Your task to perform on an android device: delete a single message in the gmail app Image 0: 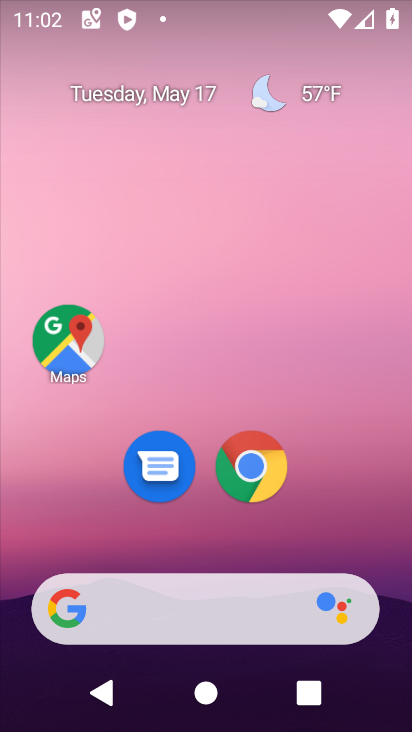
Step 0: drag from (202, 549) to (152, 11)
Your task to perform on an android device: delete a single message in the gmail app Image 1: 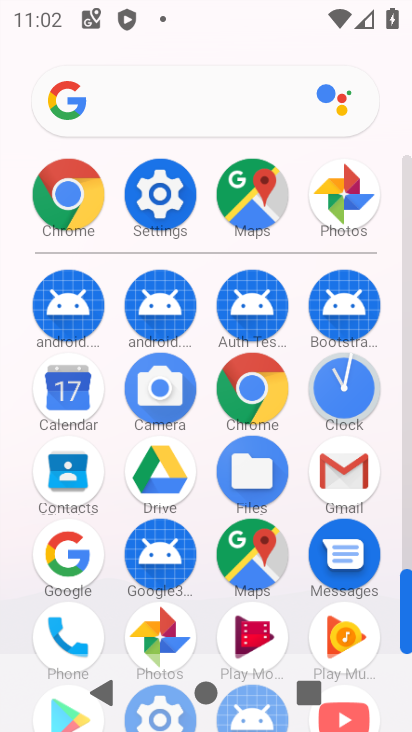
Step 1: click (352, 464)
Your task to perform on an android device: delete a single message in the gmail app Image 2: 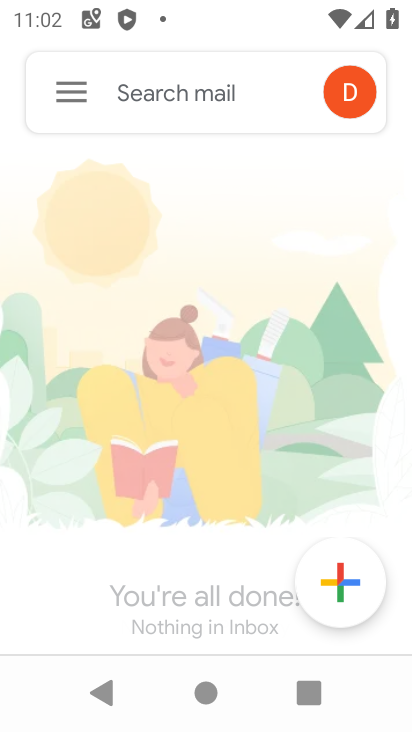
Step 2: click (55, 86)
Your task to perform on an android device: delete a single message in the gmail app Image 3: 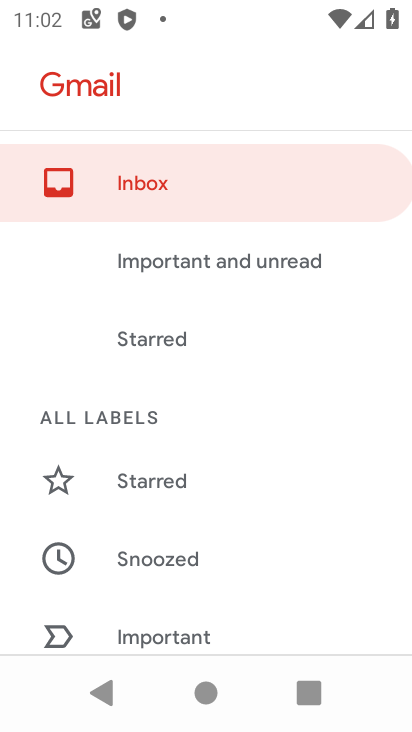
Step 3: task complete